Your task to perform on an android device: Go to network settings Image 0: 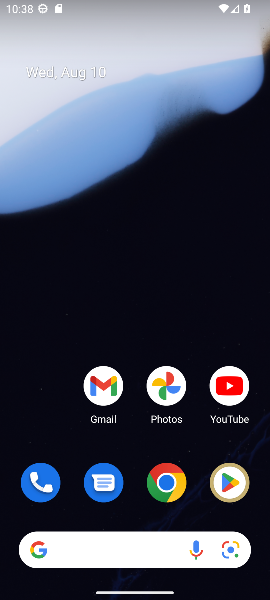
Step 0: drag from (156, 334) to (150, 131)
Your task to perform on an android device: Go to network settings Image 1: 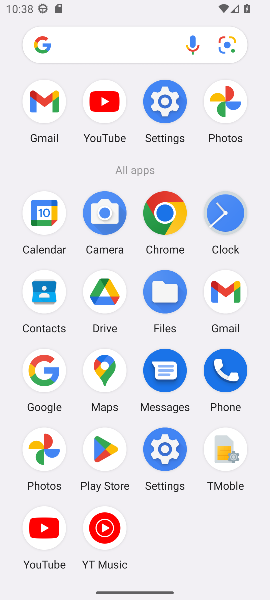
Step 1: click (175, 106)
Your task to perform on an android device: Go to network settings Image 2: 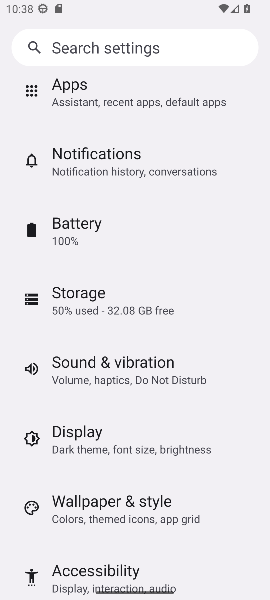
Step 2: drag from (164, 182) to (156, 396)
Your task to perform on an android device: Go to network settings Image 3: 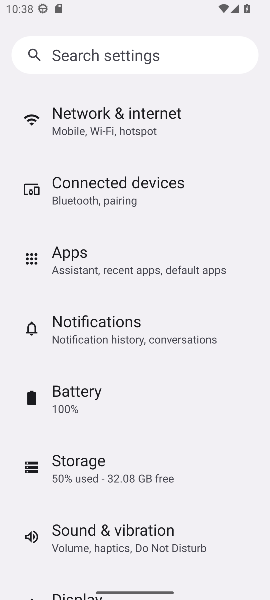
Step 3: click (159, 125)
Your task to perform on an android device: Go to network settings Image 4: 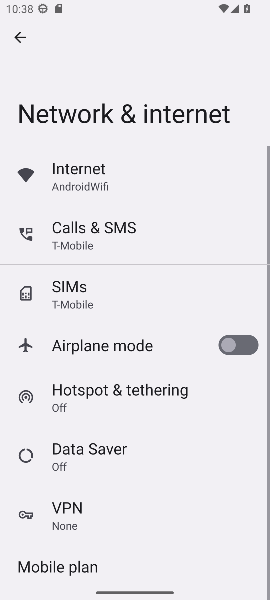
Step 4: task complete